Your task to perform on an android device: change text size in settings app Image 0: 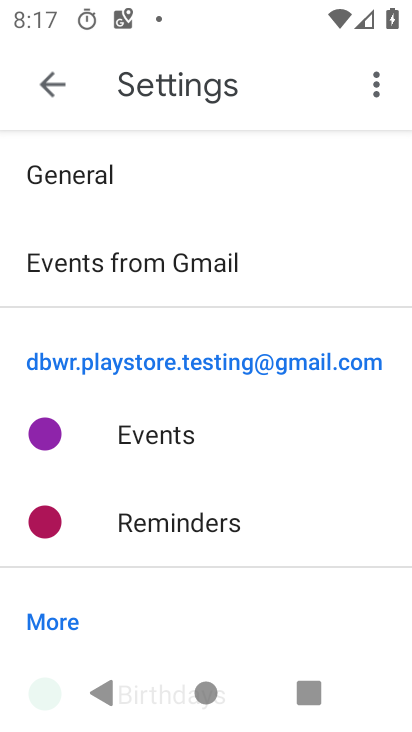
Step 0: press home button
Your task to perform on an android device: change text size in settings app Image 1: 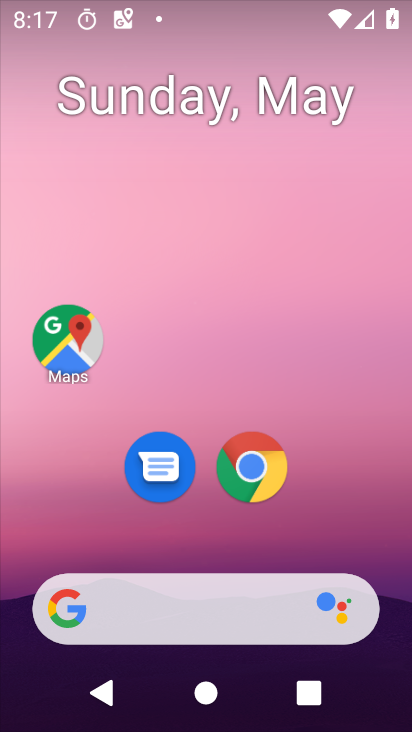
Step 1: drag from (7, 641) to (206, 175)
Your task to perform on an android device: change text size in settings app Image 2: 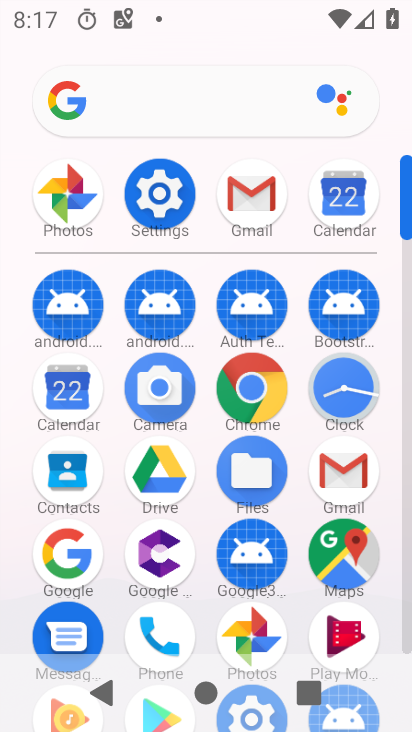
Step 2: click (166, 184)
Your task to perform on an android device: change text size in settings app Image 3: 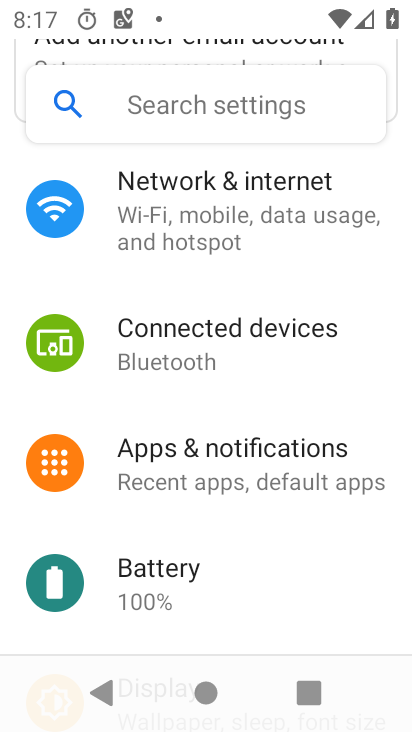
Step 3: drag from (15, 625) to (277, 140)
Your task to perform on an android device: change text size in settings app Image 4: 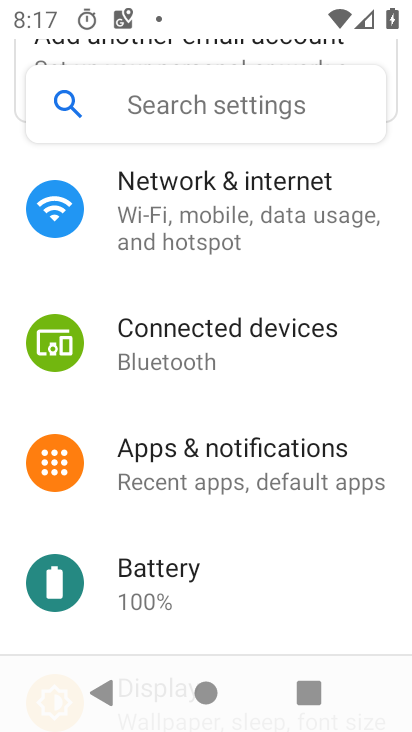
Step 4: drag from (45, 493) to (245, 119)
Your task to perform on an android device: change text size in settings app Image 5: 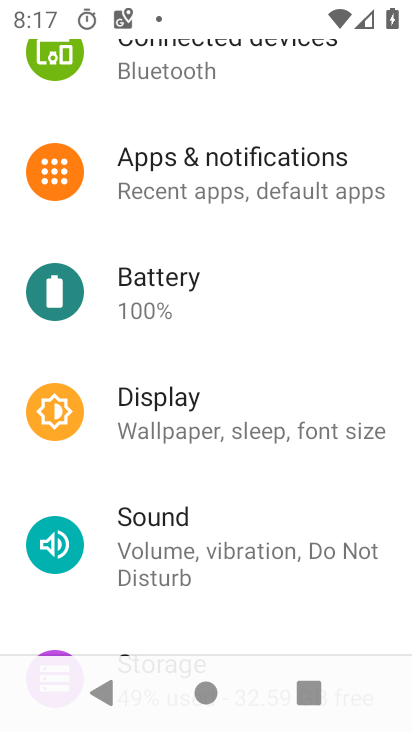
Step 5: click (230, 430)
Your task to perform on an android device: change text size in settings app Image 6: 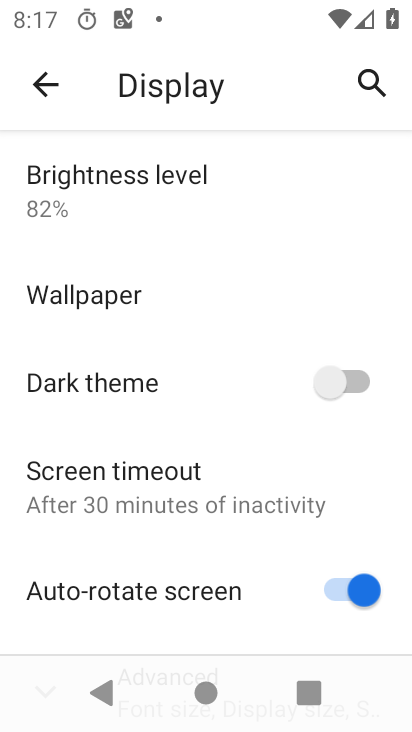
Step 6: drag from (55, 358) to (168, 190)
Your task to perform on an android device: change text size in settings app Image 7: 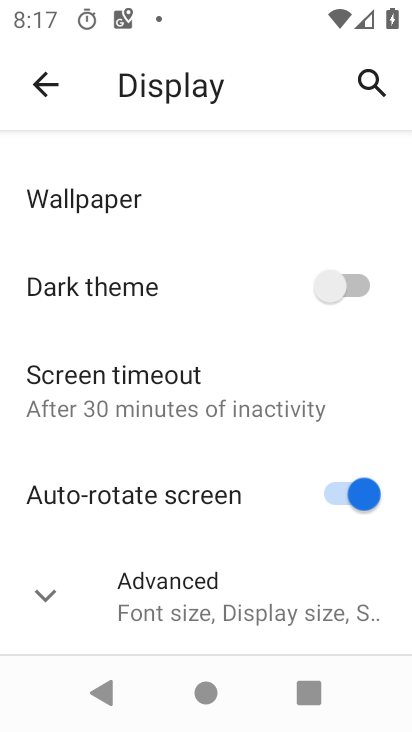
Step 7: click (221, 590)
Your task to perform on an android device: change text size in settings app Image 8: 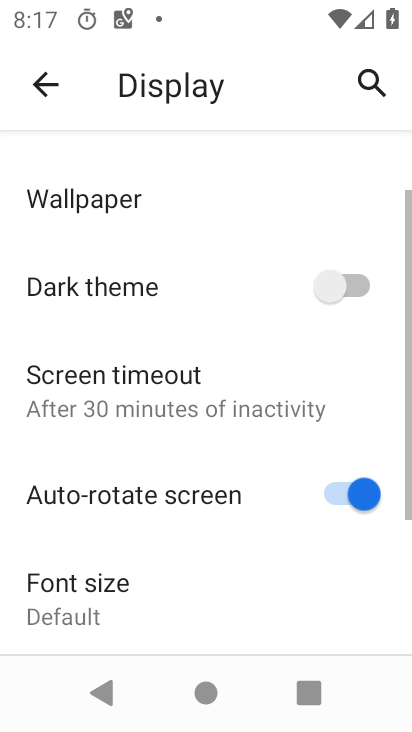
Step 8: drag from (36, 367) to (154, 202)
Your task to perform on an android device: change text size in settings app Image 9: 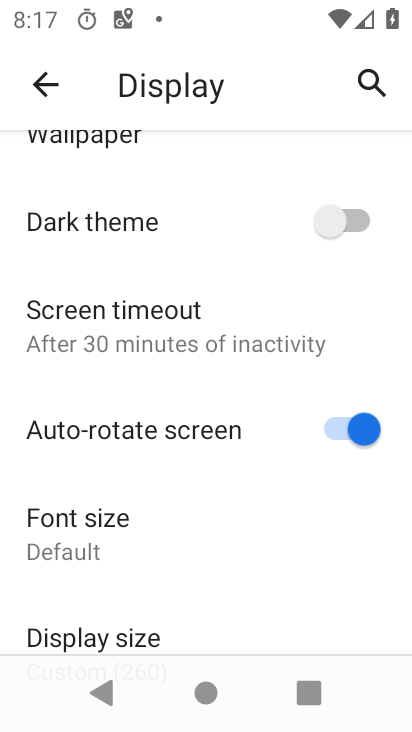
Step 9: drag from (57, 464) to (263, 141)
Your task to perform on an android device: change text size in settings app Image 10: 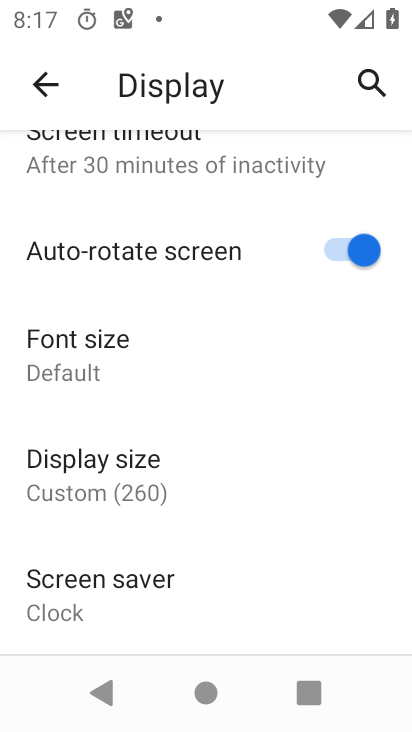
Step 10: click (85, 478)
Your task to perform on an android device: change text size in settings app Image 11: 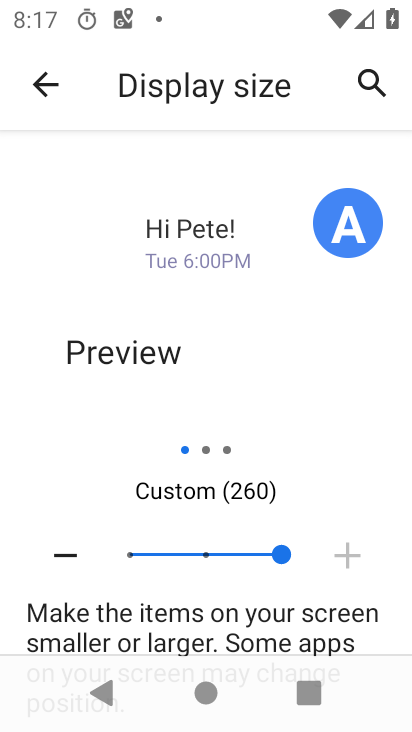
Step 11: click (281, 559)
Your task to perform on an android device: change text size in settings app Image 12: 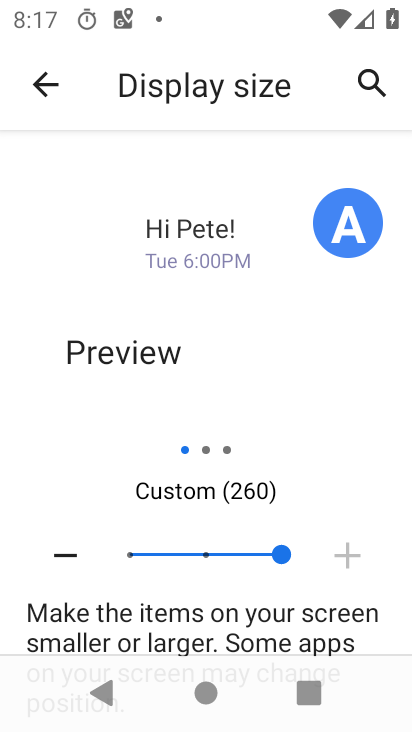
Step 12: click (67, 559)
Your task to perform on an android device: change text size in settings app Image 13: 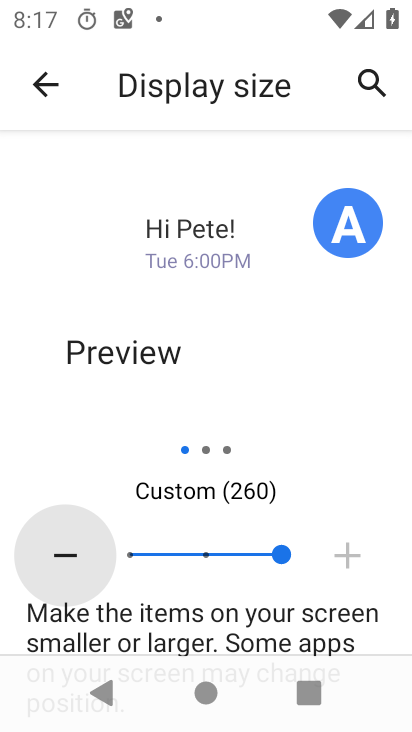
Step 13: click (69, 556)
Your task to perform on an android device: change text size in settings app Image 14: 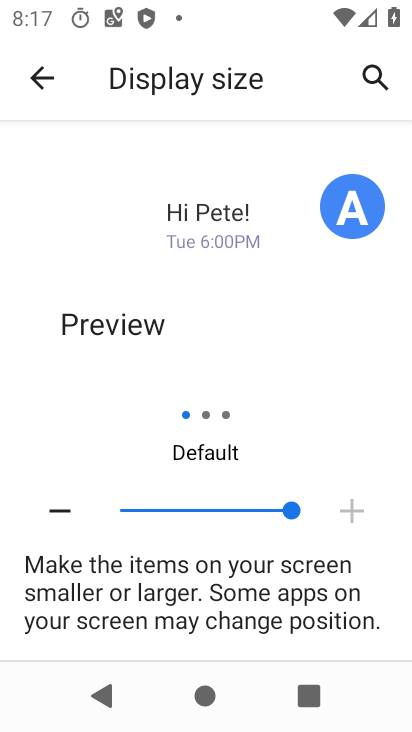
Step 14: drag from (292, 509) to (241, 509)
Your task to perform on an android device: change text size in settings app Image 15: 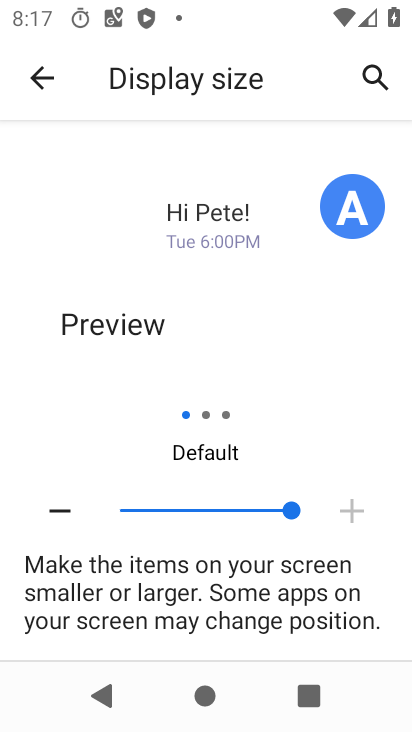
Step 15: click (46, 508)
Your task to perform on an android device: change text size in settings app Image 16: 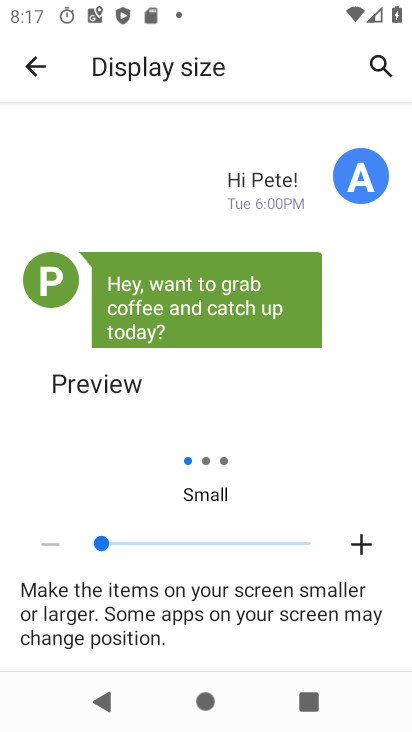
Step 16: click (373, 536)
Your task to perform on an android device: change text size in settings app Image 17: 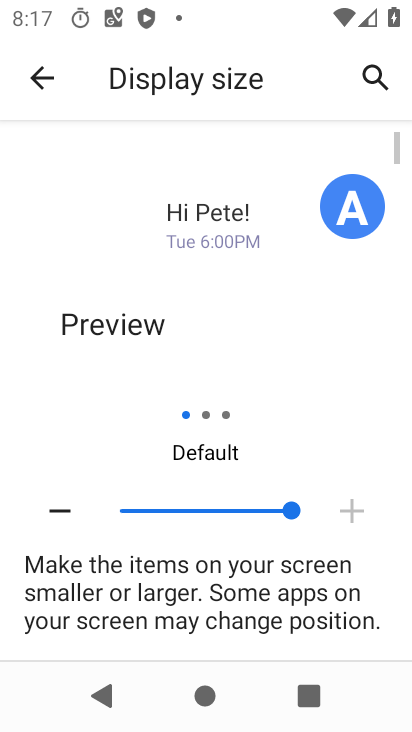
Step 17: task complete